Your task to perform on an android device: empty trash in the gmail app Image 0: 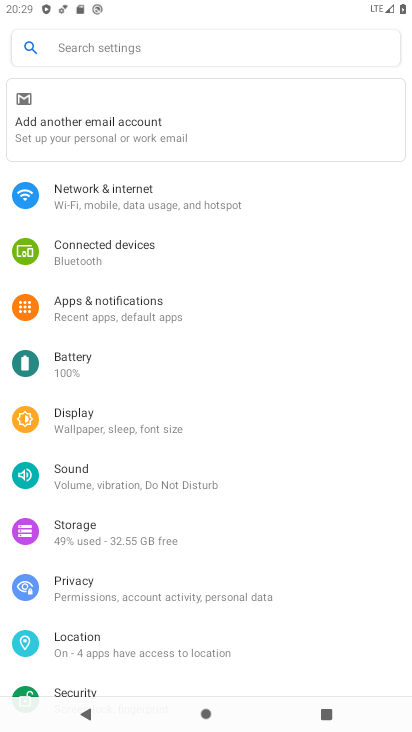
Step 0: press home button
Your task to perform on an android device: empty trash in the gmail app Image 1: 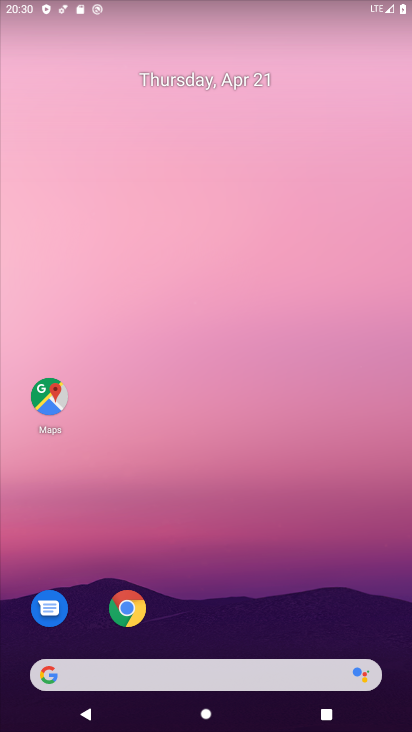
Step 1: drag from (233, 610) to (275, 152)
Your task to perform on an android device: empty trash in the gmail app Image 2: 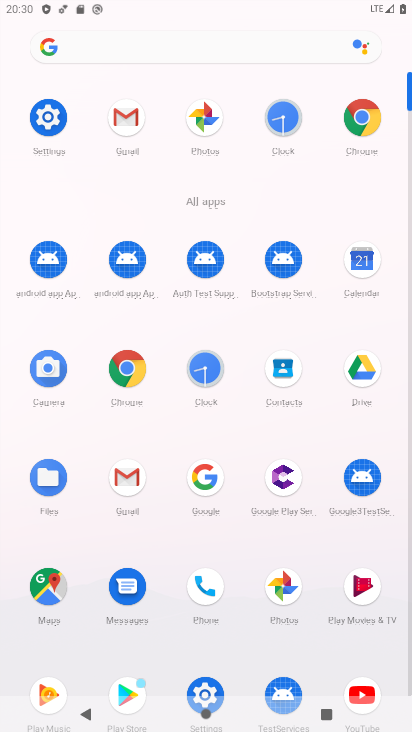
Step 2: click (131, 113)
Your task to perform on an android device: empty trash in the gmail app Image 3: 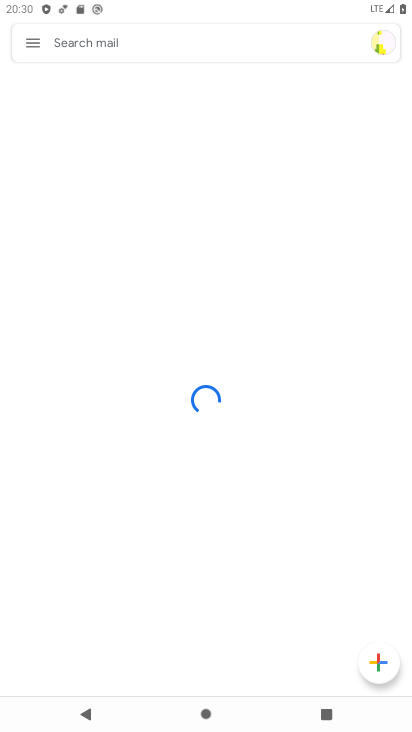
Step 3: click (32, 50)
Your task to perform on an android device: empty trash in the gmail app Image 4: 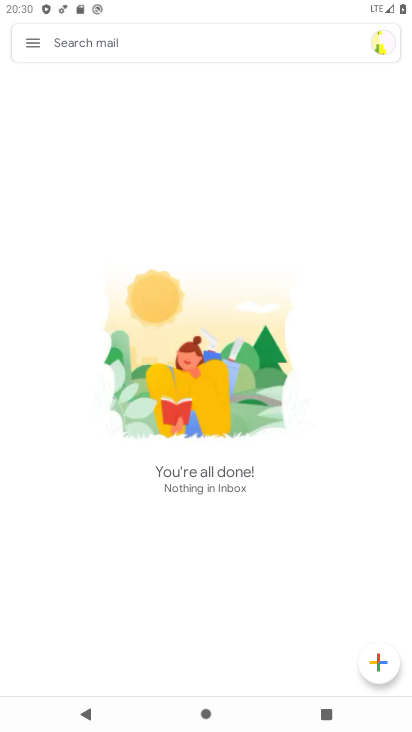
Step 4: click (41, 48)
Your task to perform on an android device: empty trash in the gmail app Image 5: 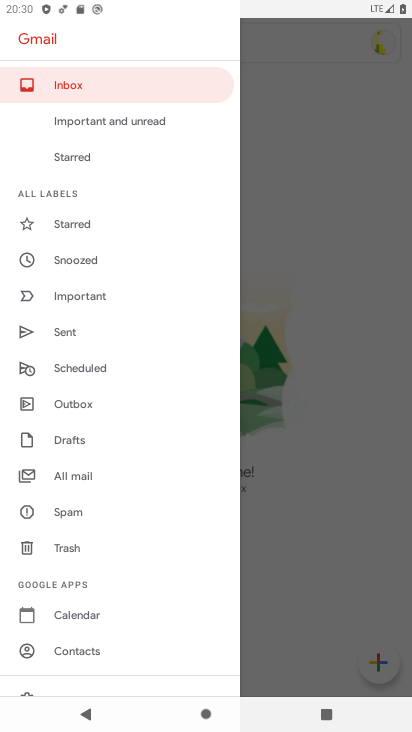
Step 5: click (139, 550)
Your task to perform on an android device: empty trash in the gmail app Image 6: 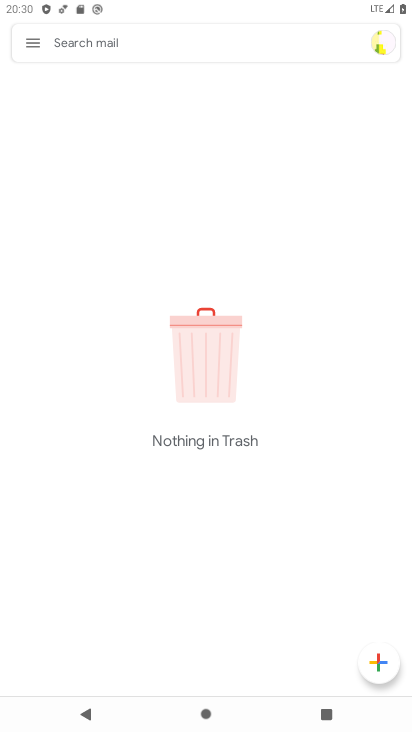
Step 6: task complete